Your task to perform on an android device: turn on showing notifications on the lock screen Image 0: 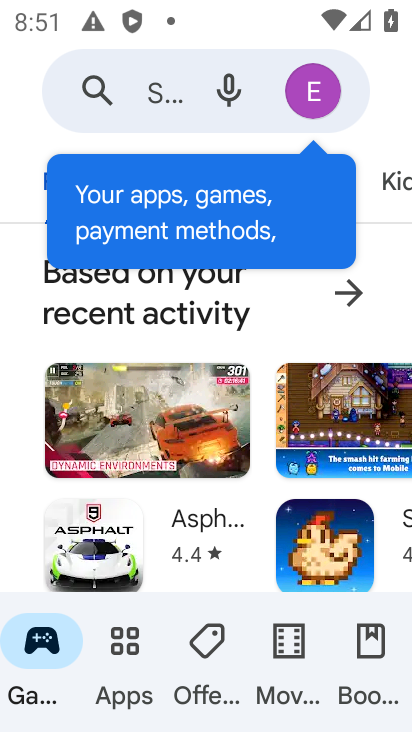
Step 0: press home button
Your task to perform on an android device: turn on showing notifications on the lock screen Image 1: 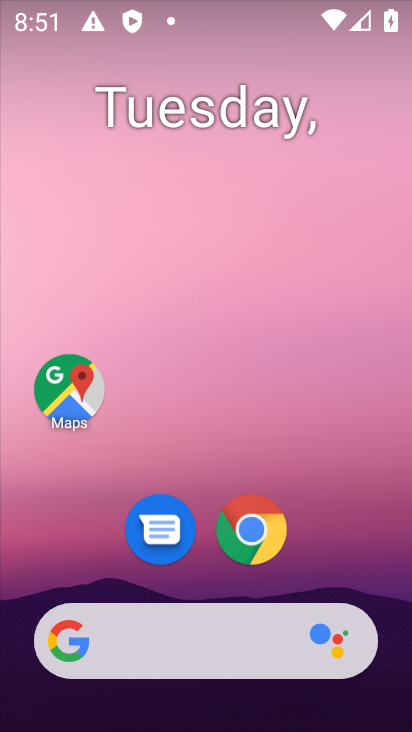
Step 1: drag from (198, 548) to (235, 230)
Your task to perform on an android device: turn on showing notifications on the lock screen Image 2: 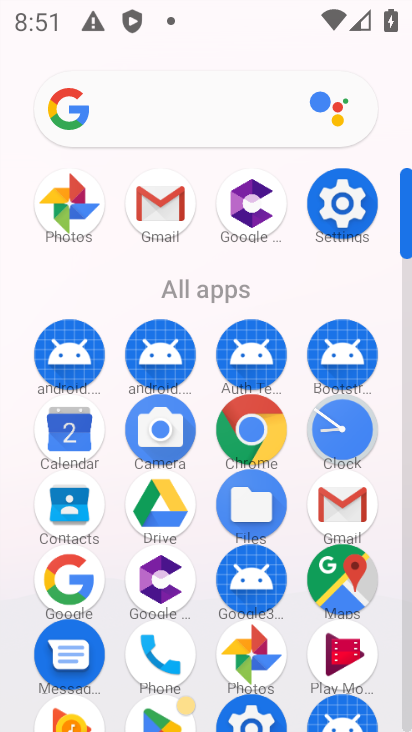
Step 2: click (339, 186)
Your task to perform on an android device: turn on showing notifications on the lock screen Image 3: 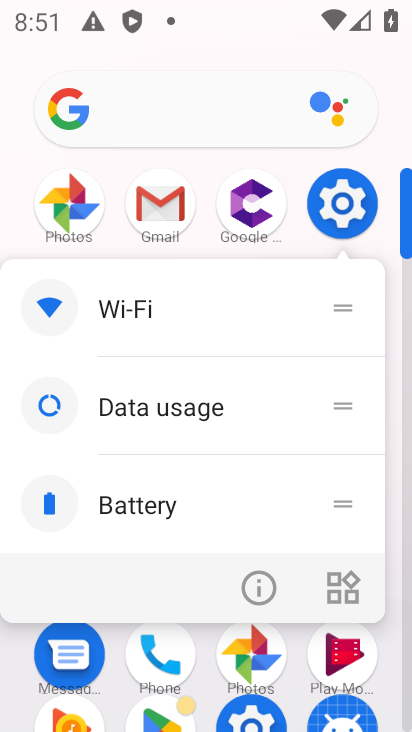
Step 3: click (256, 591)
Your task to perform on an android device: turn on showing notifications on the lock screen Image 4: 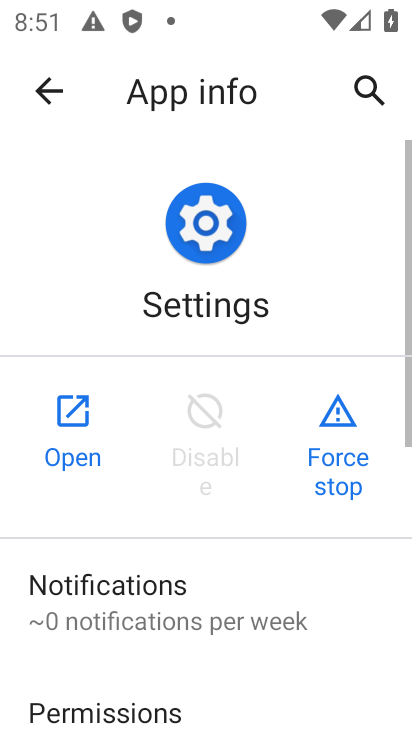
Step 4: click (79, 421)
Your task to perform on an android device: turn on showing notifications on the lock screen Image 5: 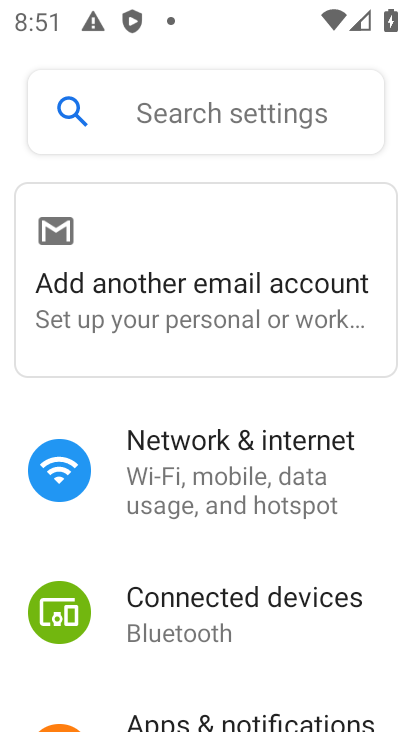
Step 5: drag from (215, 631) to (273, 146)
Your task to perform on an android device: turn on showing notifications on the lock screen Image 6: 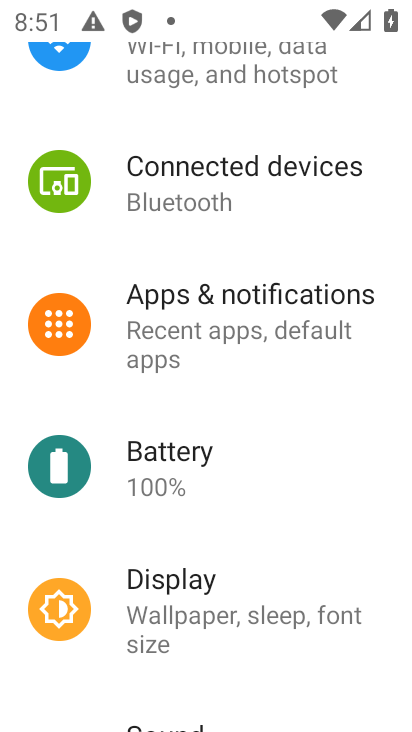
Step 6: drag from (195, 593) to (408, 567)
Your task to perform on an android device: turn on showing notifications on the lock screen Image 7: 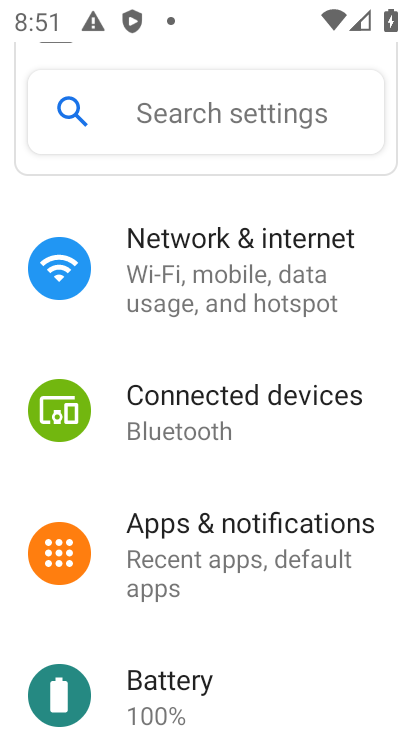
Step 7: drag from (240, 640) to (299, 277)
Your task to perform on an android device: turn on showing notifications on the lock screen Image 8: 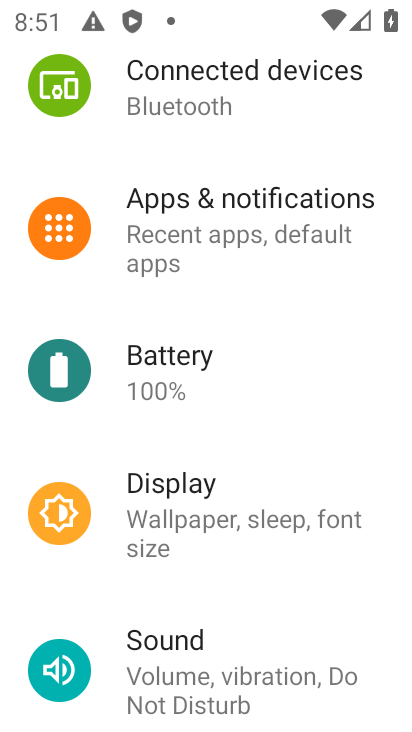
Step 8: click (192, 491)
Your task to perform on an android device: turn on showing notifications on the lock screen Image 9: 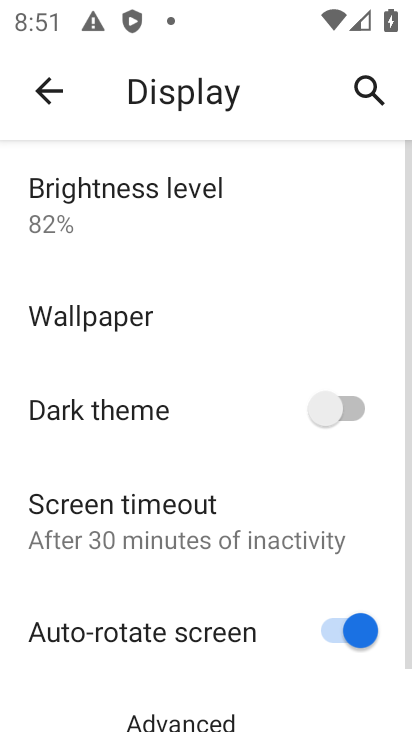
Step 9: drag from (178, 657) to (310, 330)
Your task to perform on an android device: turn on showing notifications on the lock screen Image 10: 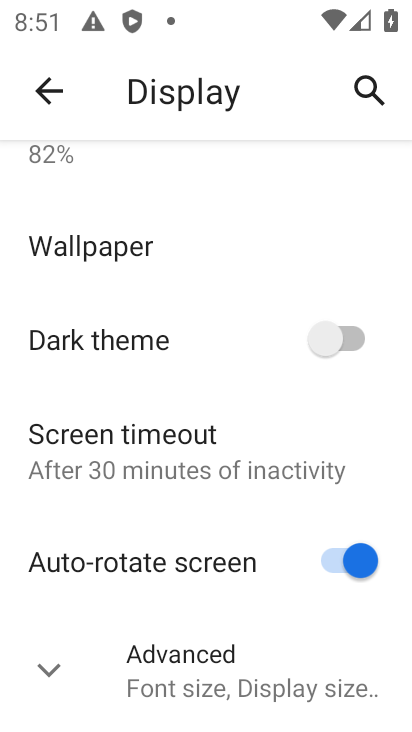
Step 10: click (205, 447)
Your task to perform on an android device: turn on showing notifications on the lock screen Image 11: 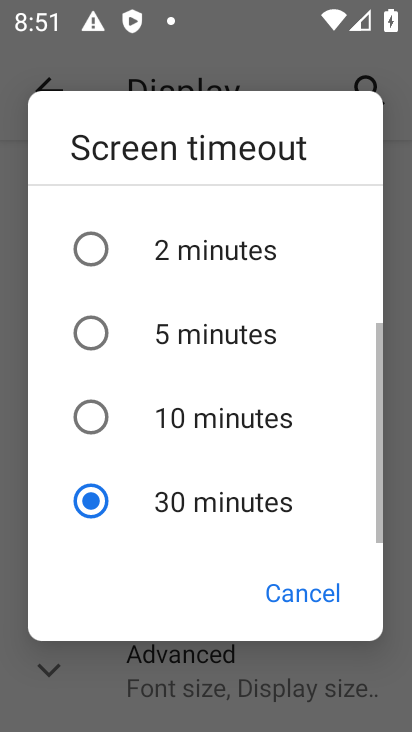
Step 11: click (284, 584)
Your task to perform on an android device: turn on showing notifications on the lock screen Image 12: 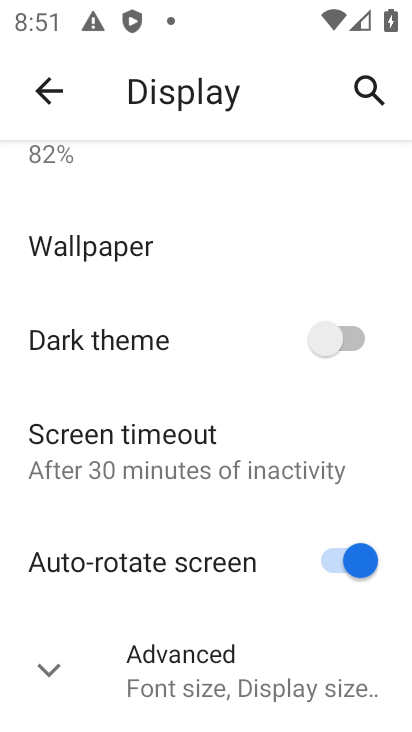
Step 12: click (42, 84)
Your task to perform on an android device: turn on showing notifications on the lock screen Image 13: 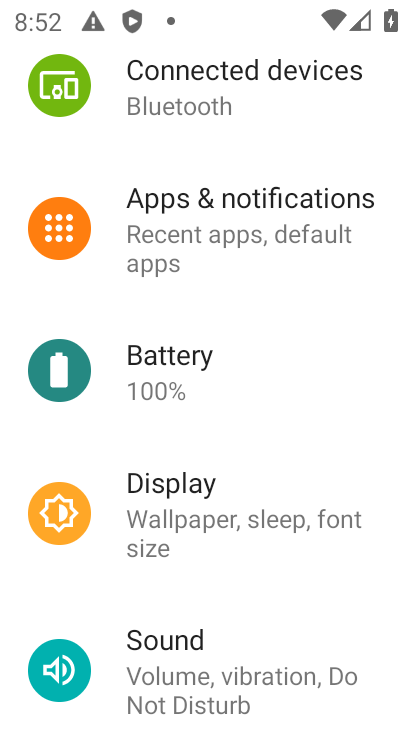
Step 13: click (223, 230)
Your task to perform on an android device: turn on showing notifications on the lock screen Image 14: 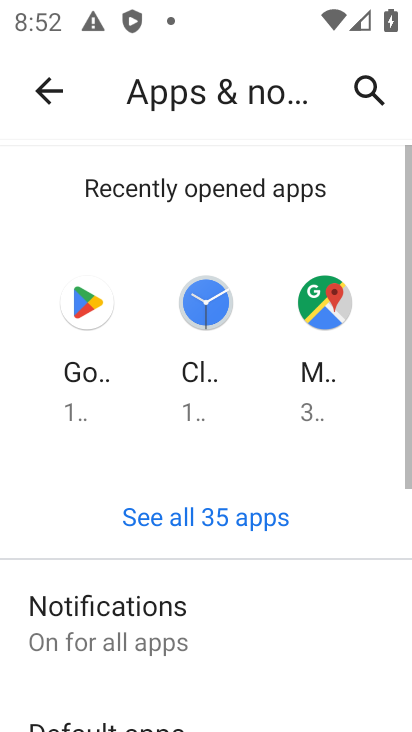
Step 14: drag from (189, 593) to (279, 136)
Your task to perform on an android device: turn on showing notifications on the lock screen Image 15: 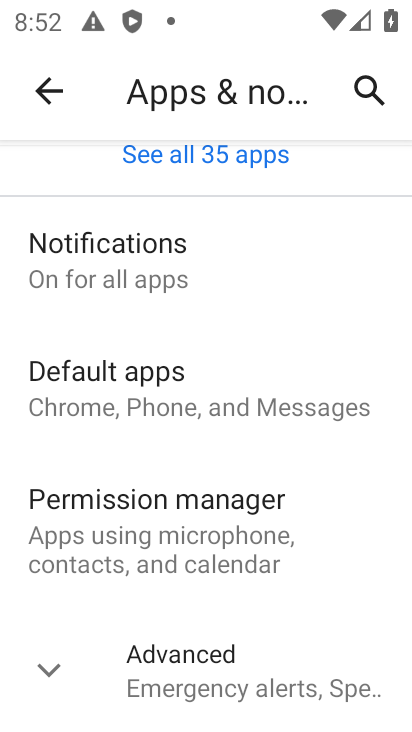
Step 15: click (186, 241)
Your task to perform on an android device: turn on showing notifications on the lock screen Image 16: 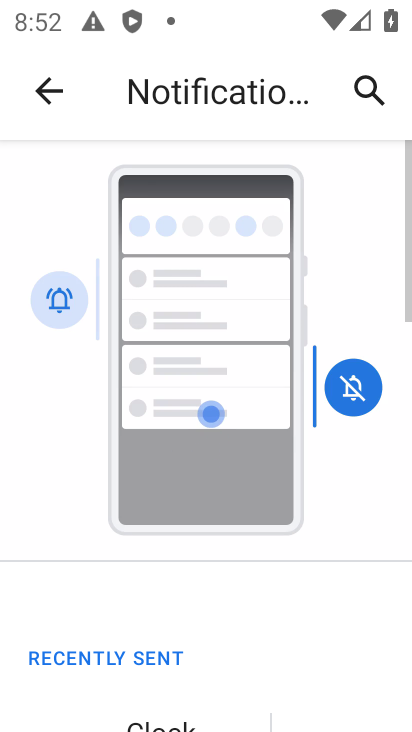
Step 16: drag from (234, 640) to (326, 159)
Your task to perform on an android device: turn on showing notifications on the lock screen Image 17: 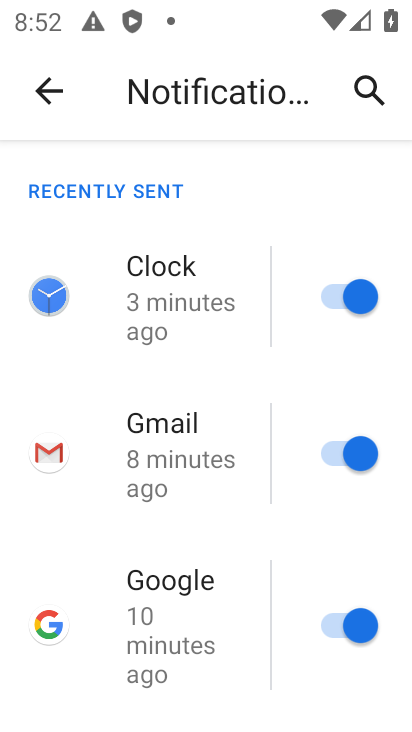
Step 17: drag from (216, 618) to (261, 348)
Your task to perform on an android device: turn on showing notifications on the lock screen Image 18: 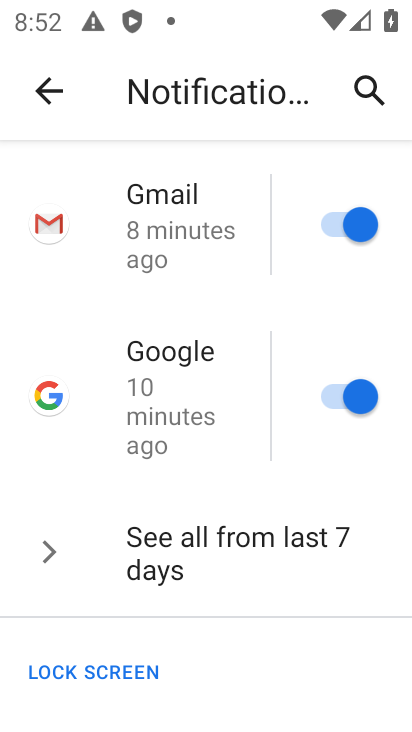
Step 18: drag from (275, 456) to (308, 282)
Your task to perform on an android device: turn on showing notifications on the lock screen Image 19: 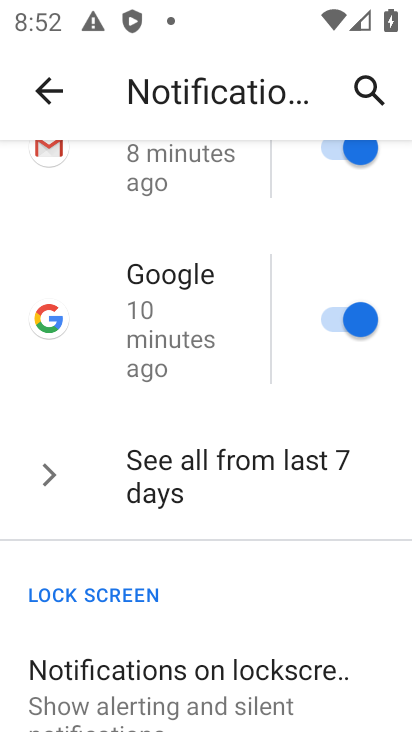
Step 19: click (144, 679)
Your task to perform on an android device: turn on showing notifications on the lock screen Image 20: 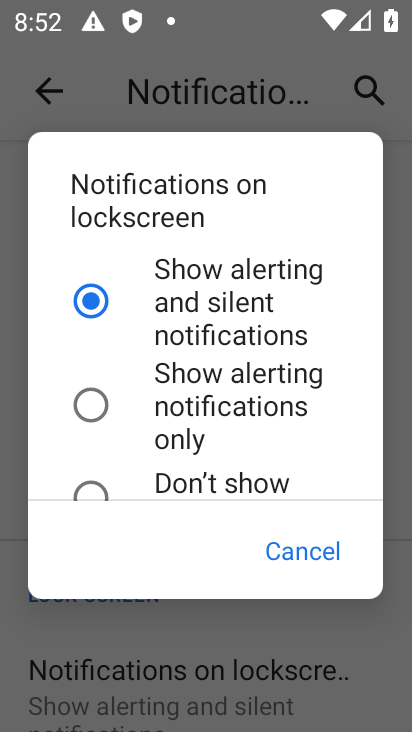
Step 20: task complete